Your task to perform on an android device: toggle data saver in the chrome app Image 0: 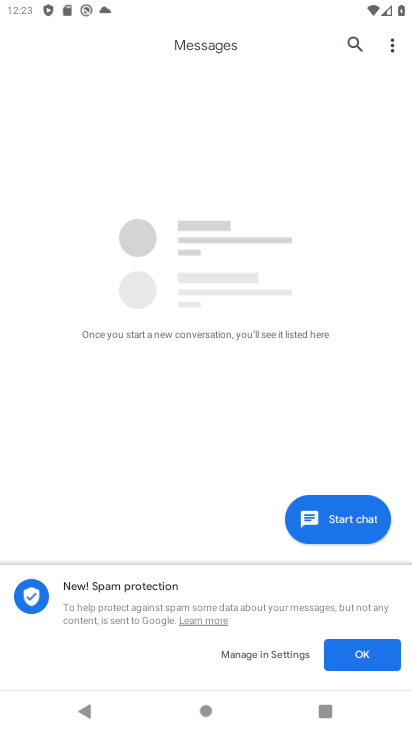
Step 0: press back button
Your task to perform on an android device: toggle data saver in the chrome app Image 1: 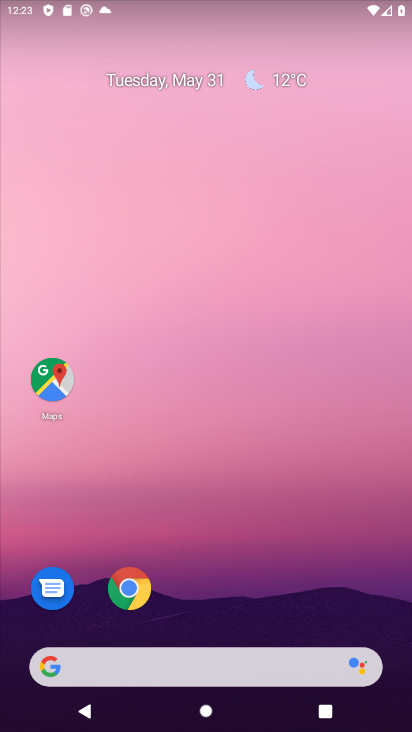
Step 1: click (128, 585)
Your task to perform on an android device: toggle data saver in the chrome app Image 2: 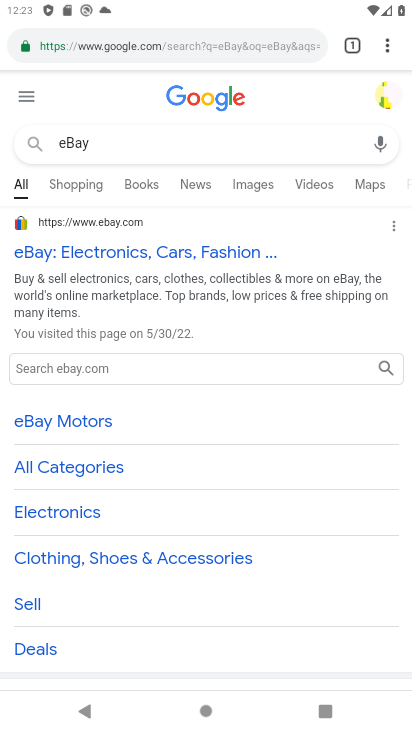
Step 2: click (22, 97)
Your task to perform on an android device: toggle data saver in the chrome app Image 3: 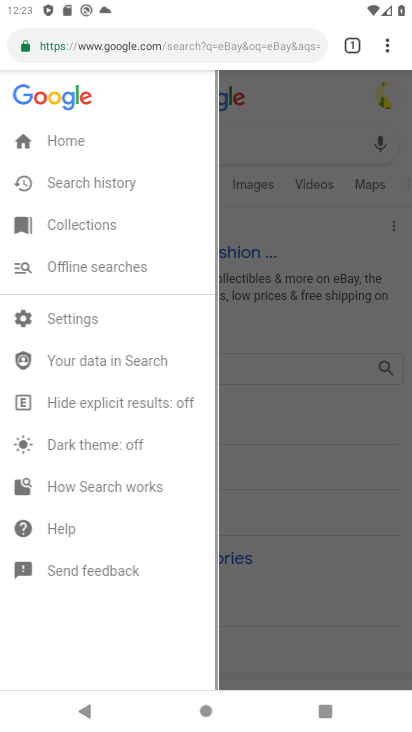
Step 3: click (338, 325)
Your task to perform on an android device: toggle data saver in the chrome app Image 4: 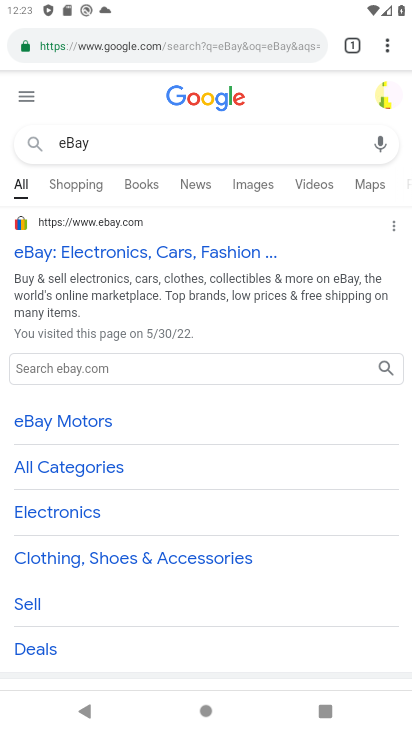
Step 4: click (387, 46)
Your task to perform on an android device: toggle data saver in the chrome app Image 5: 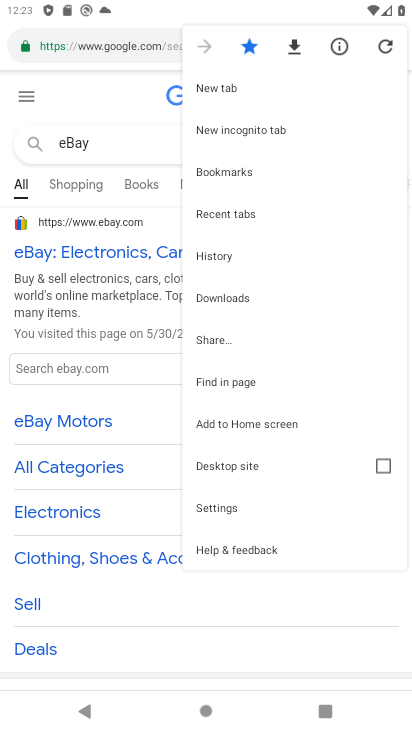
Step 5: click (221, 506)
Your task to perform on an android device: toggle data saver in the chrome app Image 6: 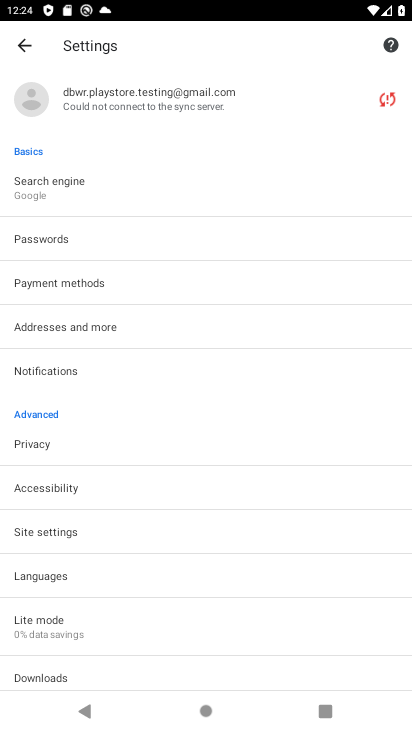
Step 6: click (62, 619)
Your task to perform on an android device: toggle data saver in the chrome app Image 7: 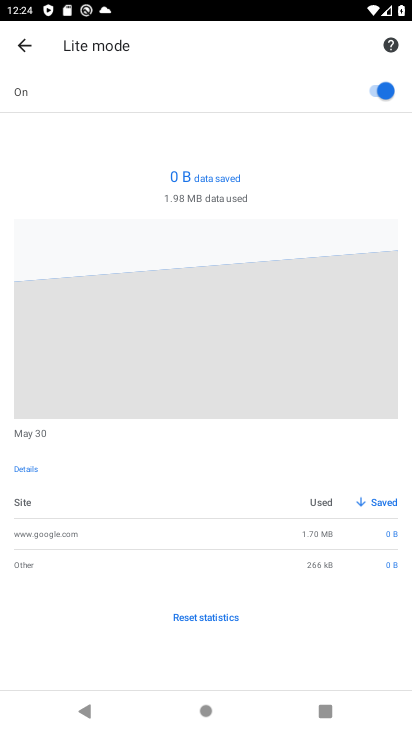
Step 7: task complete